Your task to perform on an android device: Go to network settings Image 0: 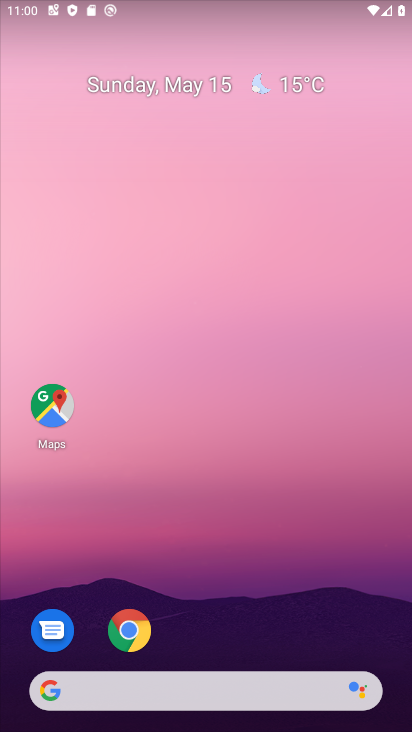
Step 0: drag from (231, 726) to (224, 275)
Your task to perform on an android device: Go to network settings Image 1: 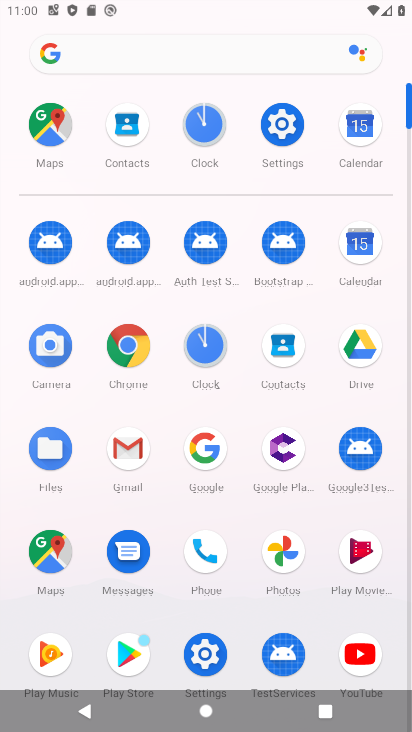
Step 1: click (279, 121)
Your task to perform on an android device: Go to network settings Image 2: 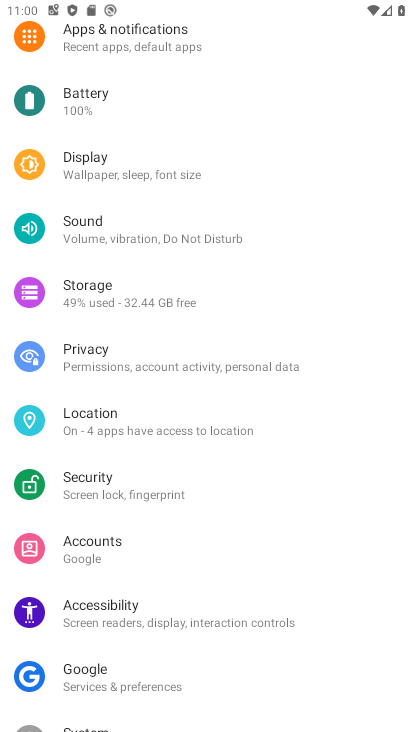
Step 2: drag from (227, 113) to (212, 458)
Your task to perform on an android device: Go to network settings Image 3: 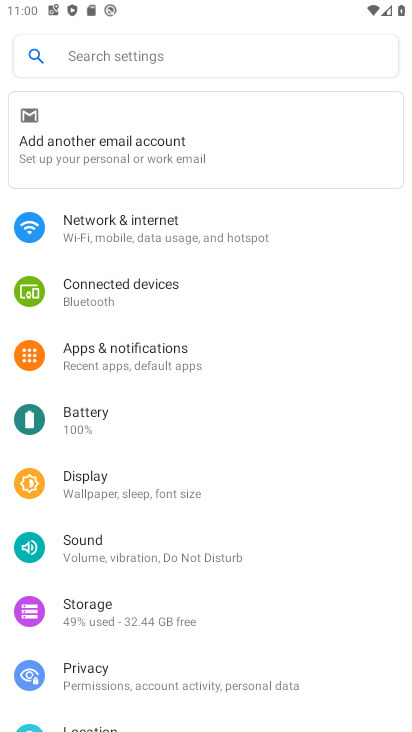
Step 3: click (99, 220)
Your task to perform on an android device: Go to network settings Image 4: 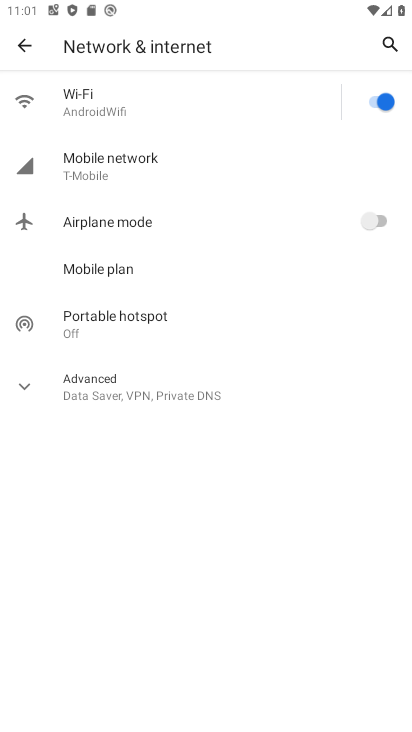
Step 4: task complete